Your task to perform on an android device: change the clock style Image 0: 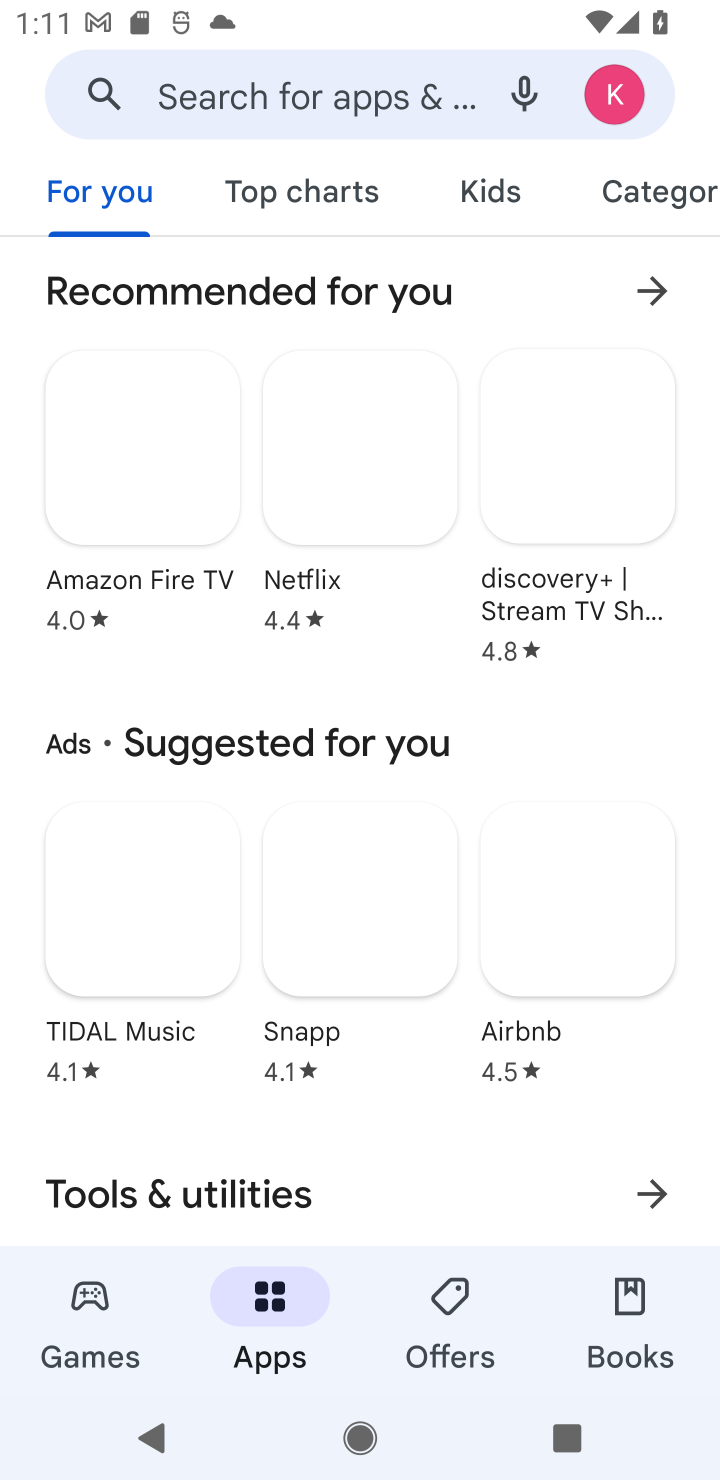
Step 0: press home button
Your task to perform on an android device: change the clock style Image 1: 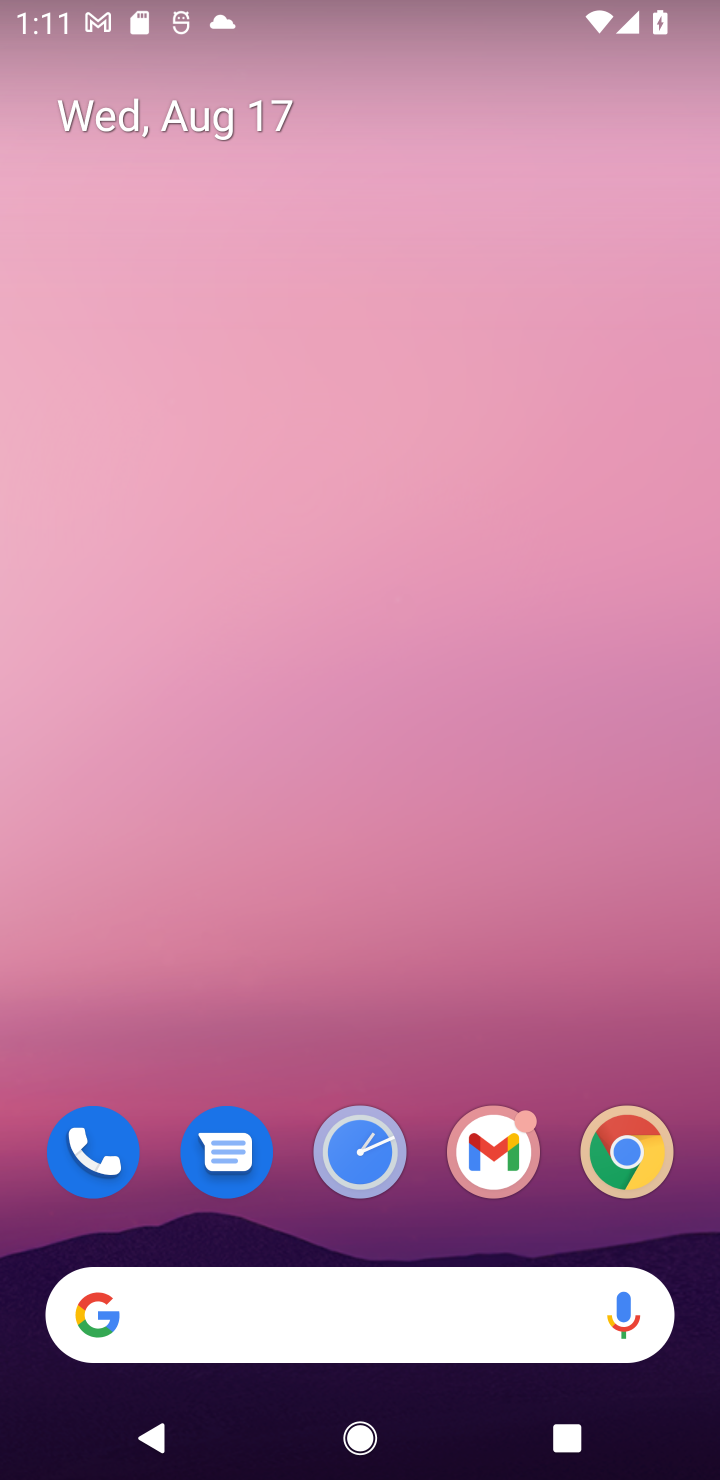
Step 1: drag from (567, 1176) to (413, 42)
Your task to perform on an android device: change the clock style Image 2: 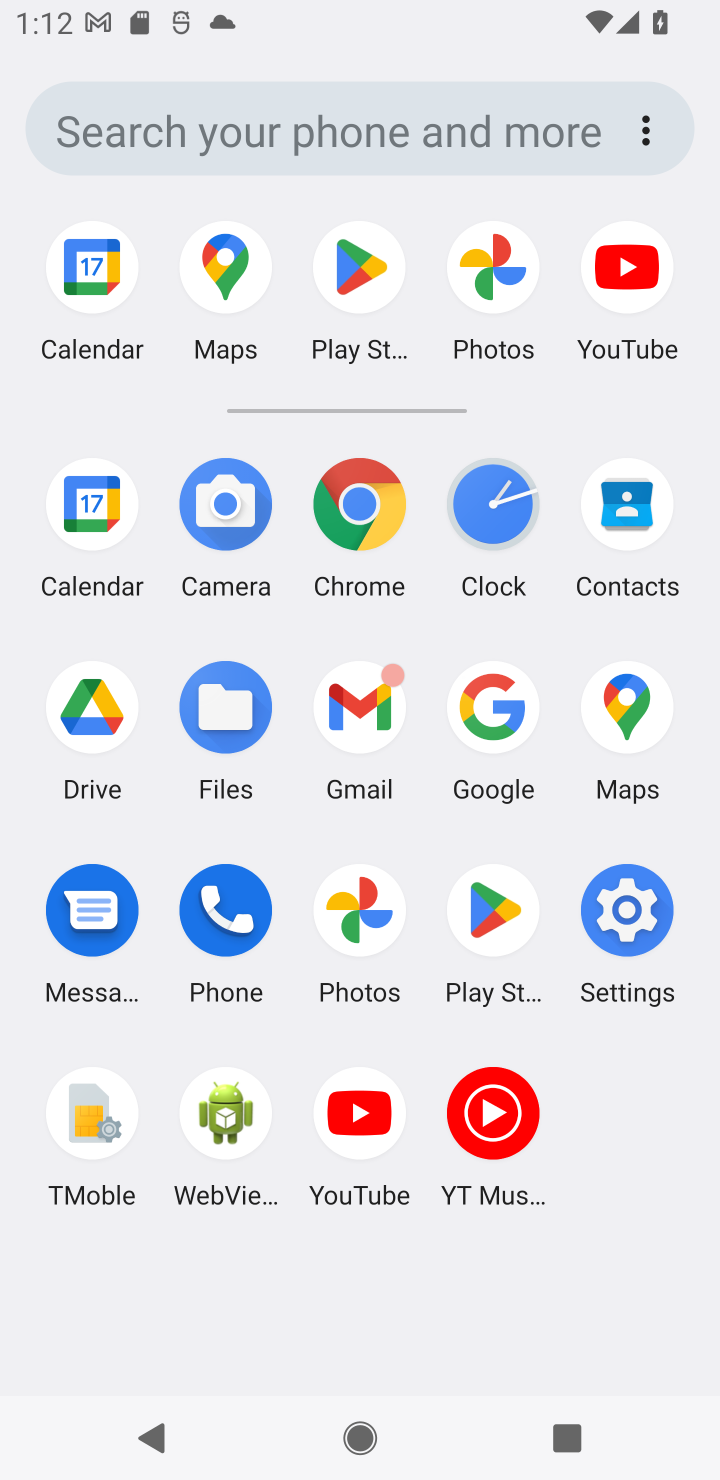
Step 2: click (469, 494)
Your task to perform on an android device: change the clock style Image 3: 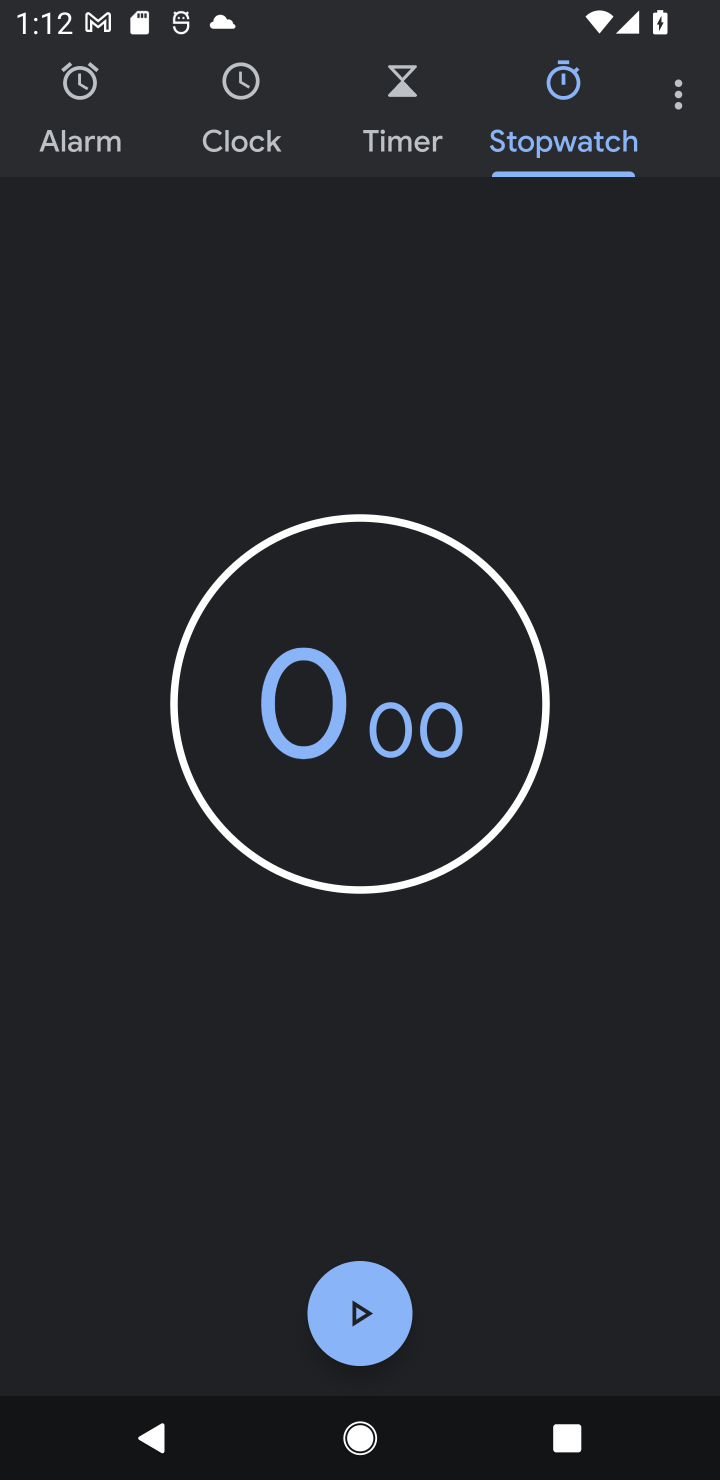
Step 3: click (657, 92)
Your task to perform on an android device: change the clock style Image 4: 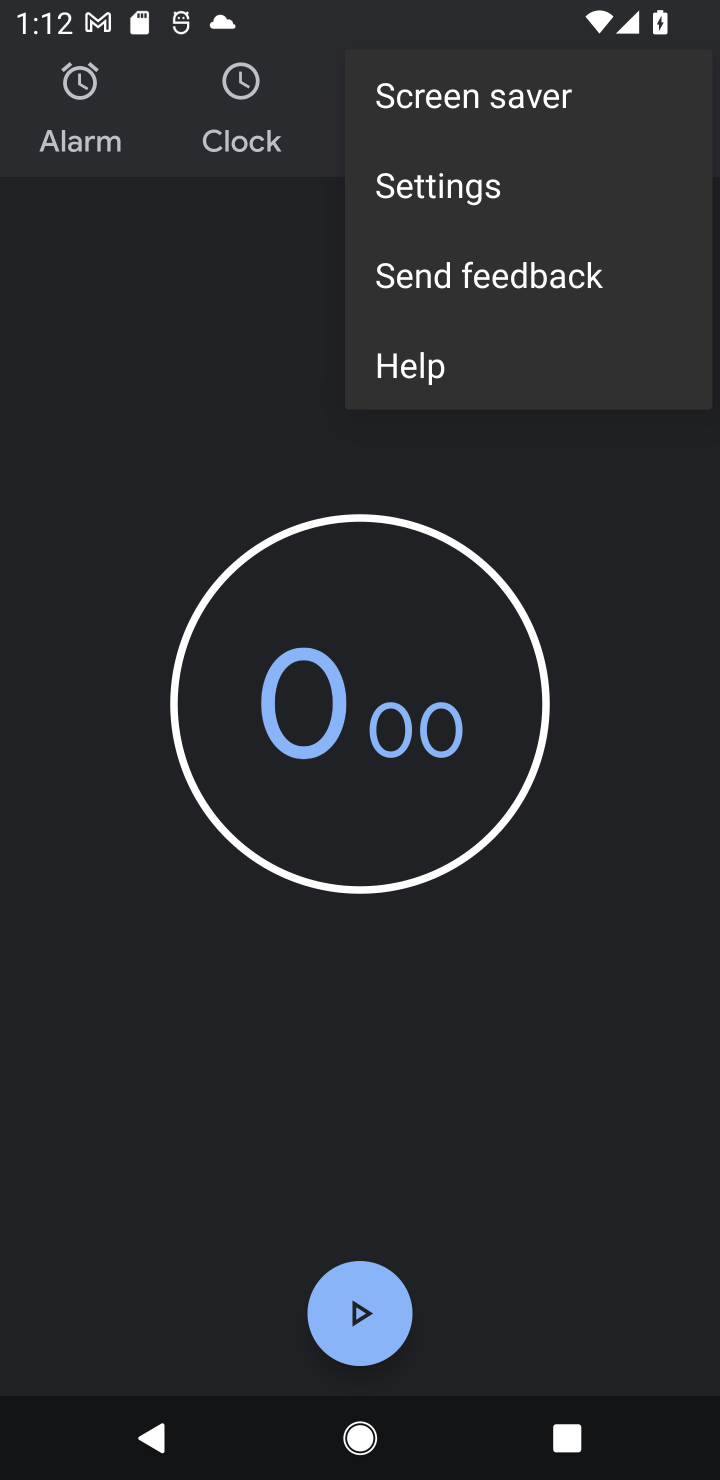
Step 4: click (508, 186)
Your task to perform on an android device: change the clock style Image 5: 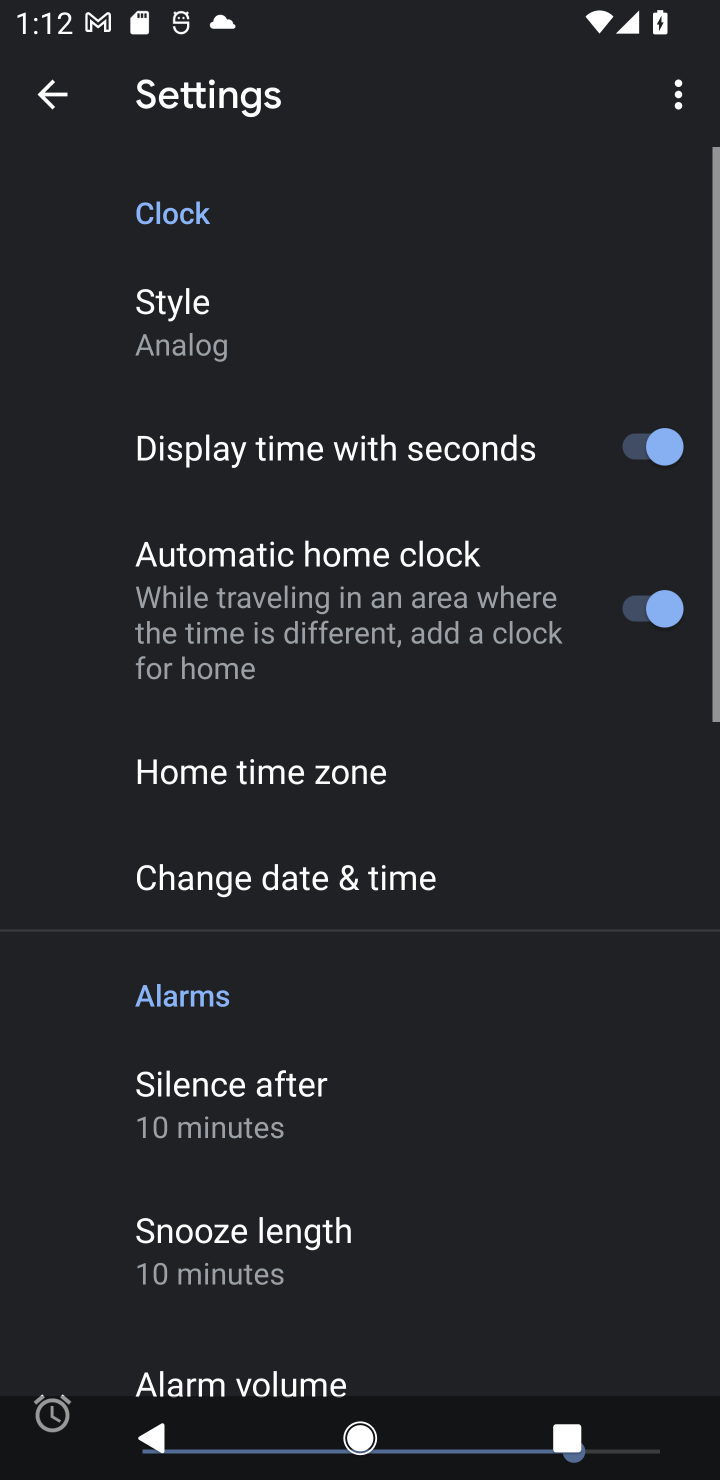
Step 5: click (262, 331)
Your task to perform on an android device: change the clock style Image 6: 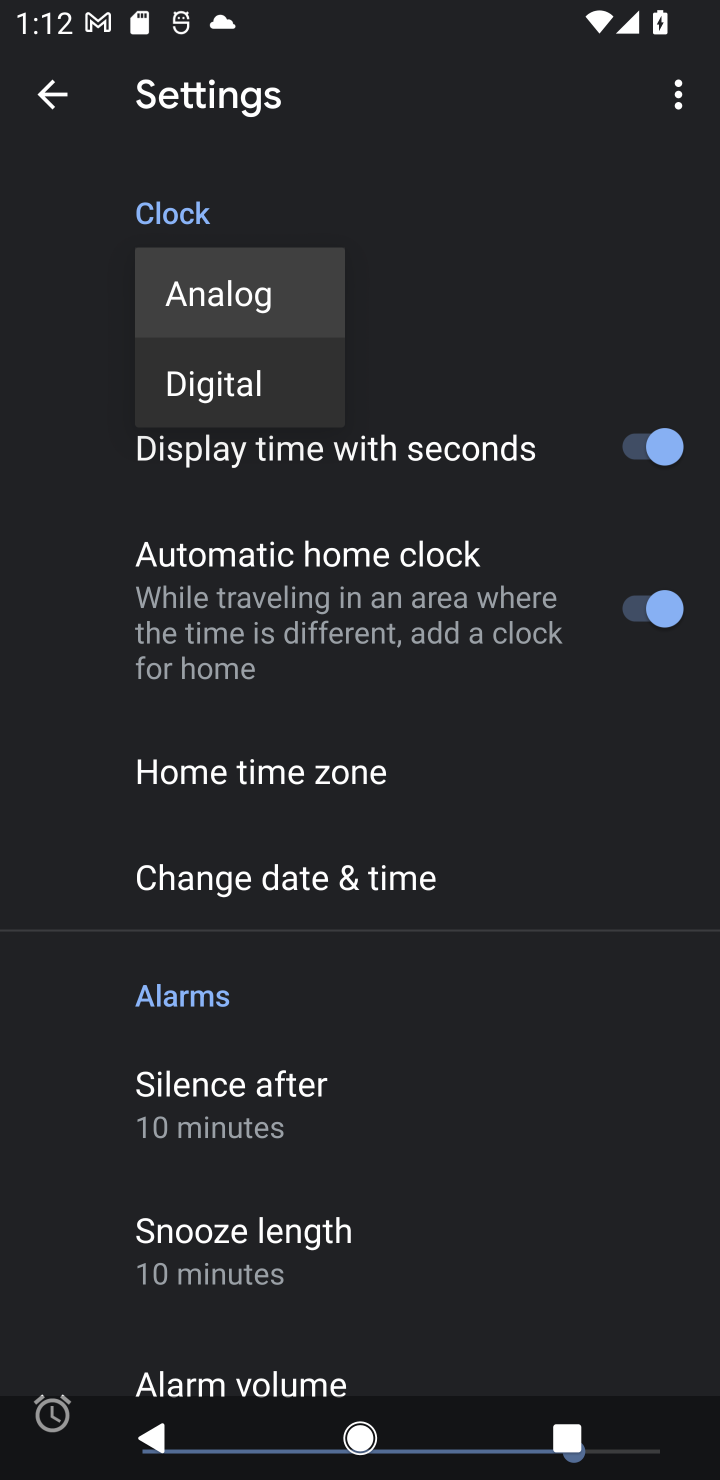
Step 6: click (216, 372)
Your task to perform on an android device: change the clock style Image 7: 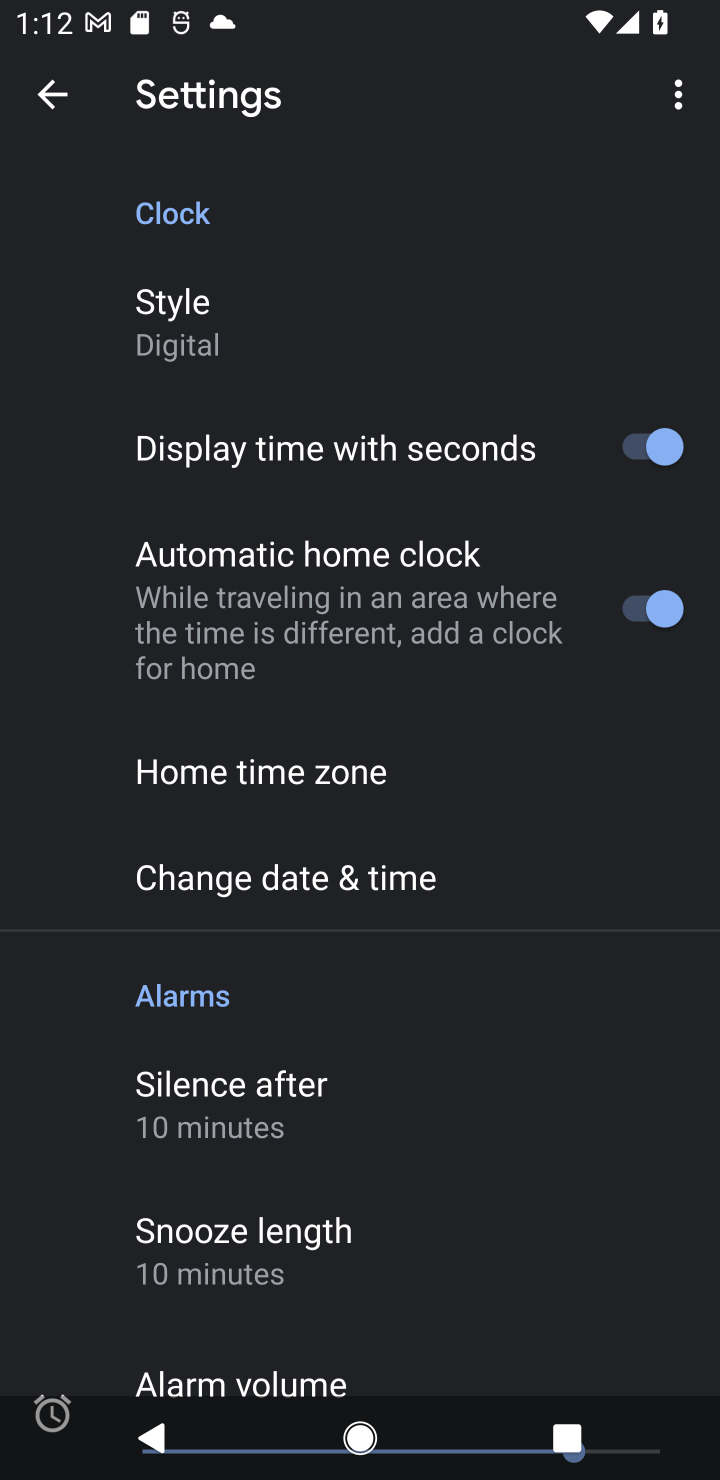
Step 7: task complete